Your task to perform on an android device: stop showing notifications on the lock screen Image 0: 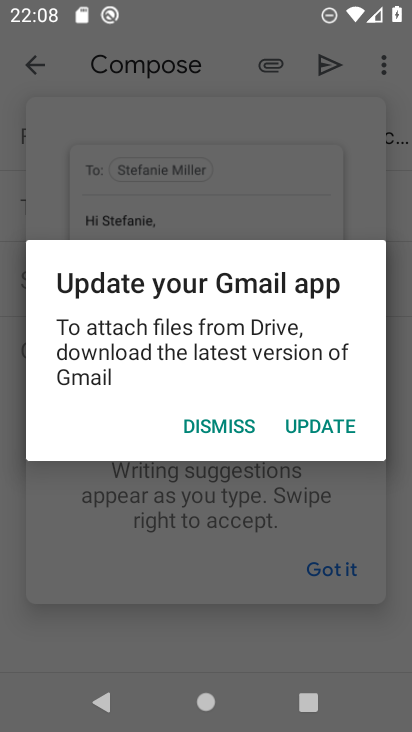
Step 0: press home button
Your task to perform on an android device: stop showing notifications on the lock screen Image 1: 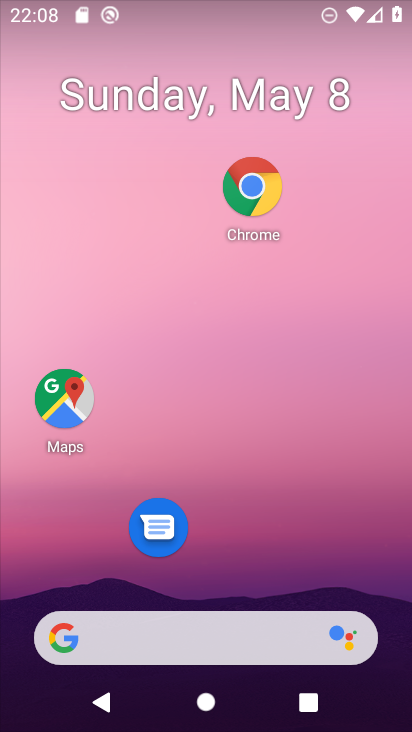
Step 1: drag from (247, 575) to (294, 294)
Your task to perform on an android device: stop showing notifications on the lock screen Image 2: 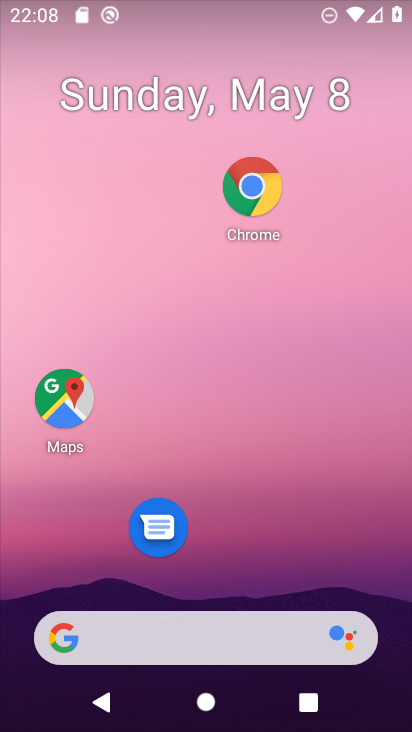
Step 2: drag from (294, 557) to (361, 211)
Your task to perform on an android device: stop showing notifications on the lock screen Image 3: 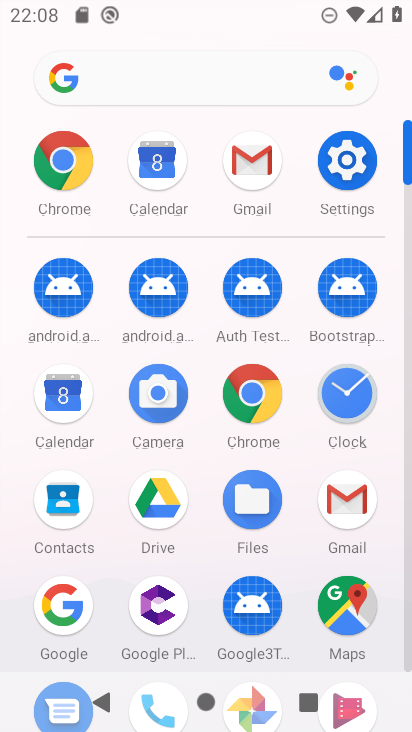
Step 3: click (338, 159)
Your task to perform on an android device: stop showing notifications on the lock screen Image 4: 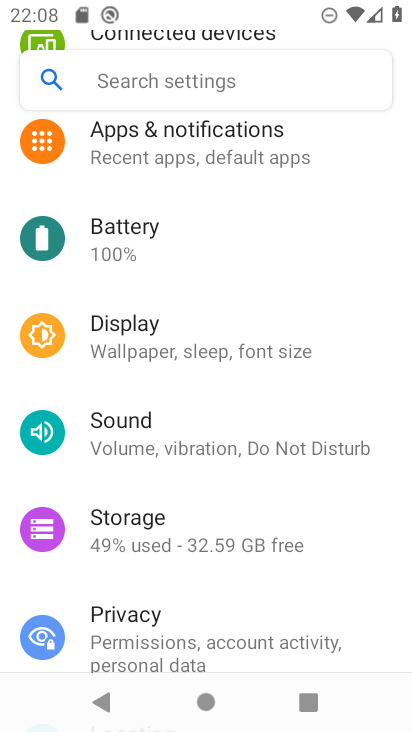
Step 4: click (241, 141)
Your task to perform on an android device: stop showing notifications on the lock screen Image 5: 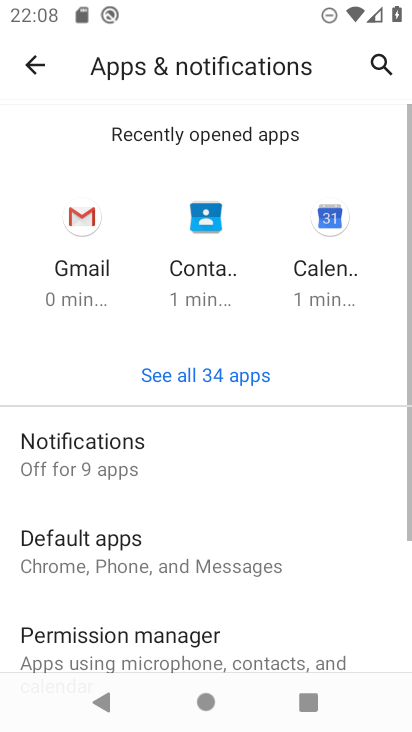
Step 5: drag from (234, 605) to (323, 349)
Your task to perform on an android device: stop showing notifications on the lock screen Image 6: 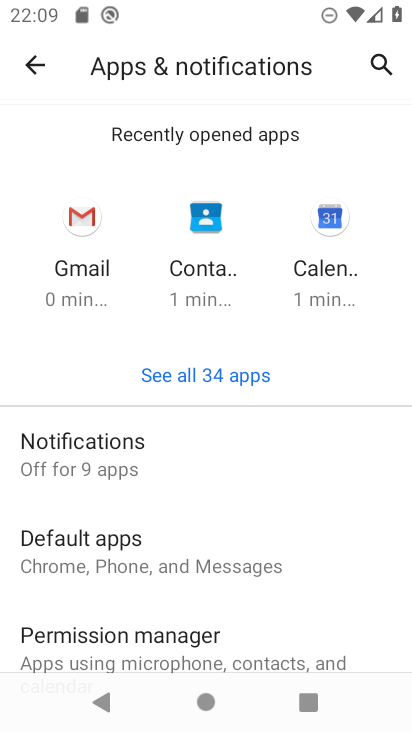
Step 6: drag from (231, 598) to (372, 119)
Your task to perform on an android device: stop showing notifications on the lock screen Image 7: 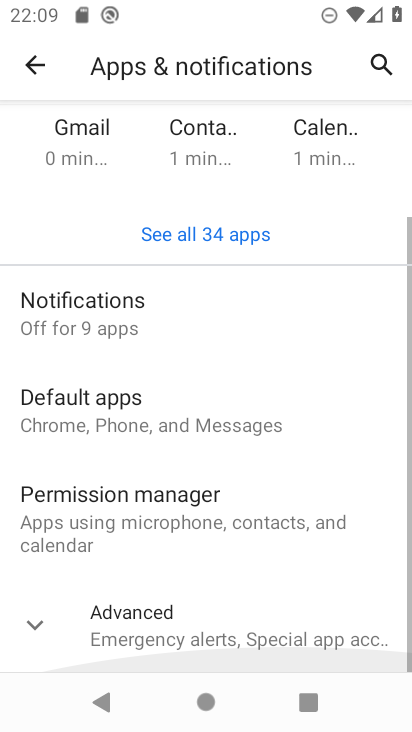
Step 7: drag from (271, 583) to (299, 163)
Your task to perform on an android device: stop showing notifications on the lock screen Image 8: 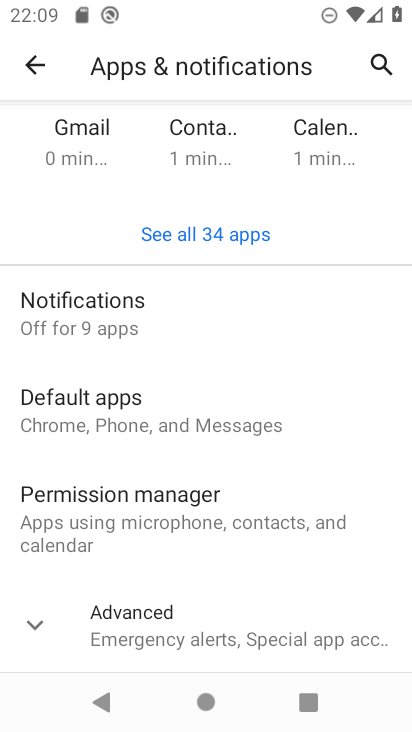
Step 8: click (143, 314)
Your task to perform on an android device: stop showing notifications on the lock screen Image 9: 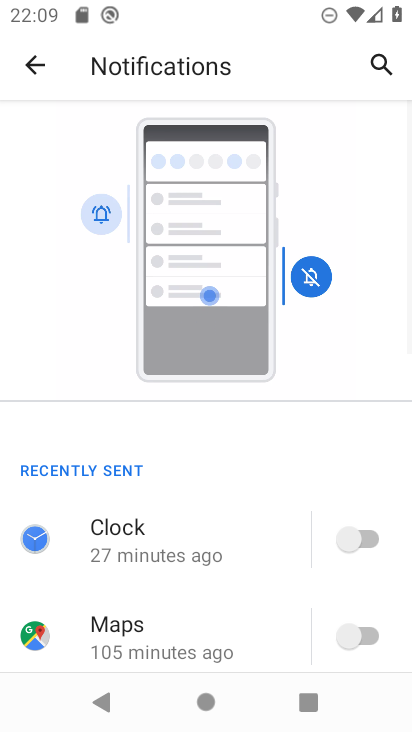
Step 9: drag from (178, 669) to (384, 110)
Your task to perform on an android device: stop showing notifications on the lock screen Image 10: 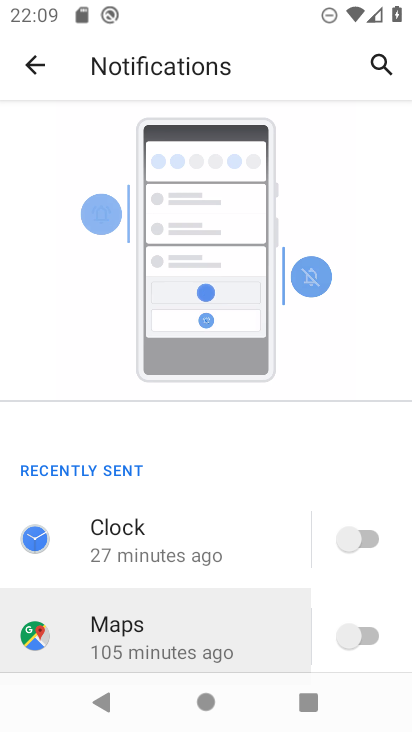
Step 10: drag from (250, 562) to (296, 267)
Your task to perform on an android device: stop showing notifications on the lock screen Image 11: 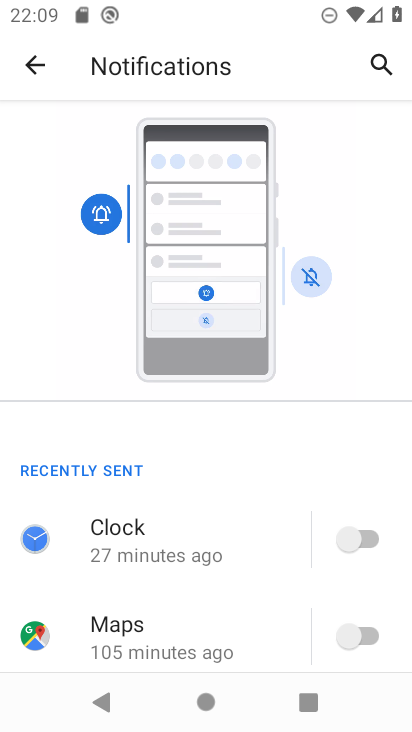
Step 11: drag from (175, 497) to (251, 111)
Your task to perform on an android device: stop showing notifications on the lock screen Image 12: 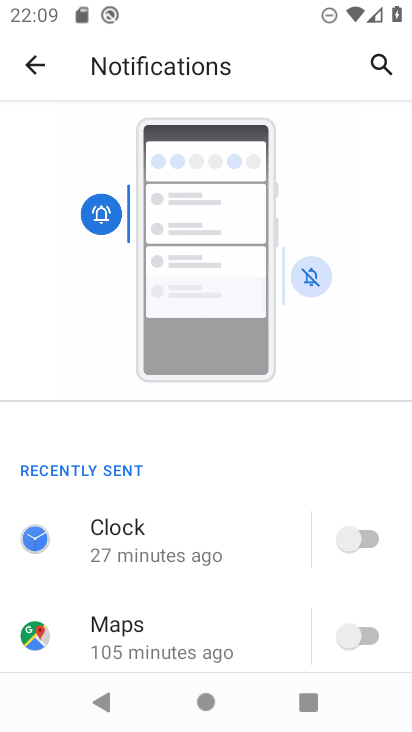
Step 12: drag from (181, 525) to (236, 178)
Your task to perform on an android device: stop showing notifications on the lock screen Image 13: 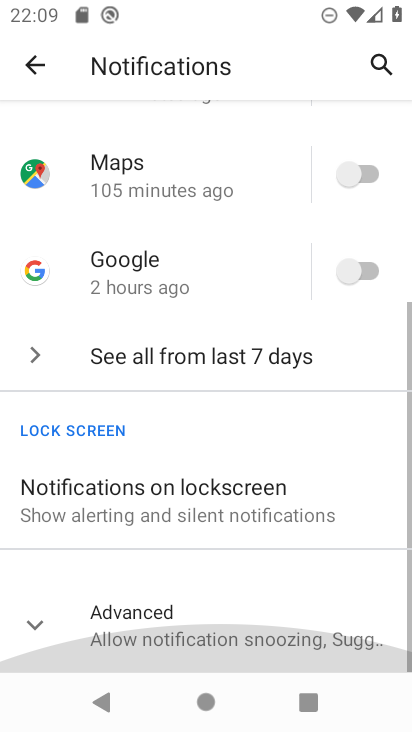
Step 13: drag from (184, 552) to (252, 192)
Your task to perform on an android device: stop showing notifications on the lock screen Image 14: 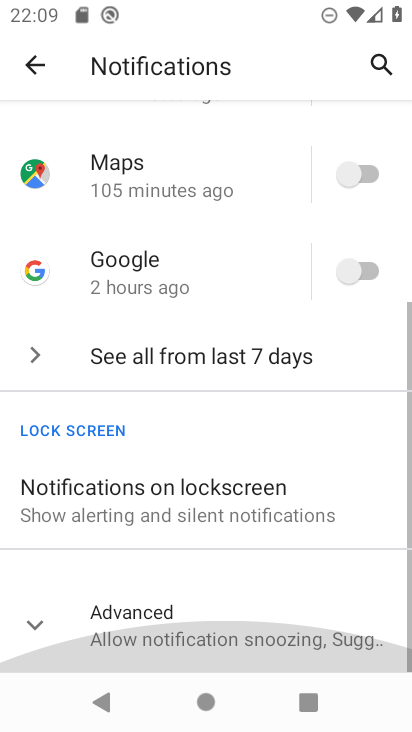
Step 14: drag from (188, 566) to (249, 290)
Your task to perform on an android device: stop showing notifications on the lock screen Image 15: 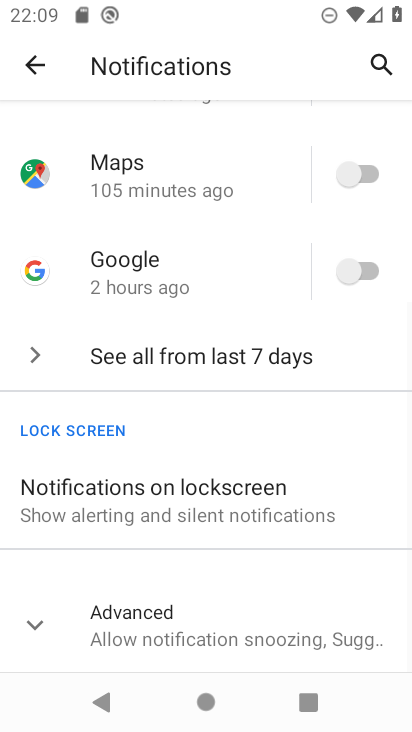
Step 15: click (146, 497)
Your task to perform on an android device: stop showing notifications on the lock screen Image 16: 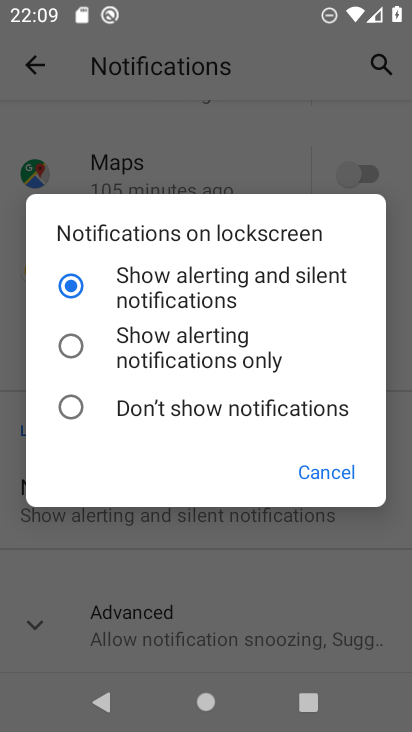
Step 16: click (132, 415)
Your task to perform on an android device: stop showing notifications on the lock screen Image 17: 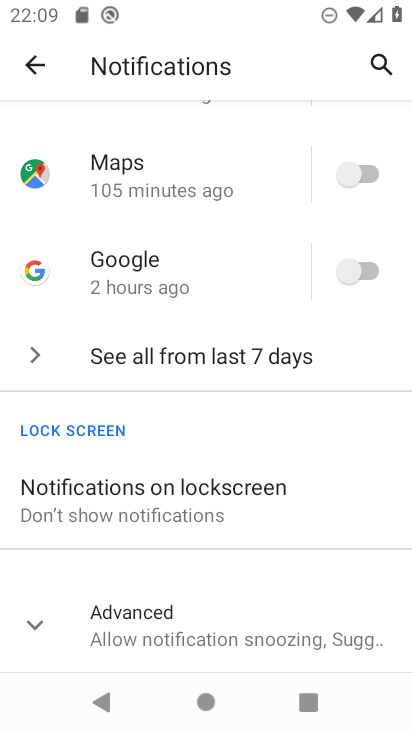
Step 17: task complete